Your task to perform on an android device: turn on translation in the chrome app Image 0: 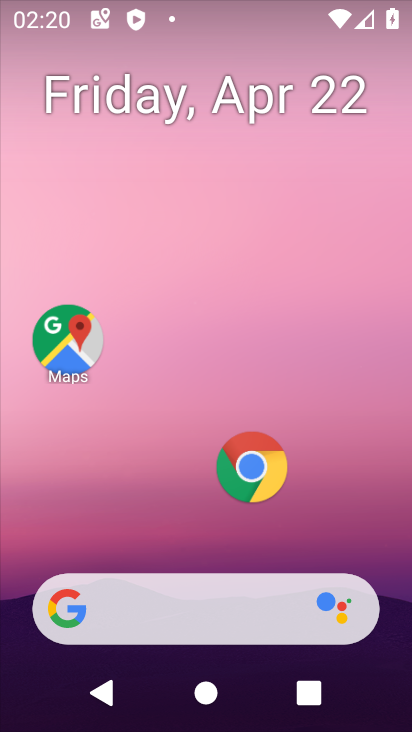
Step 0: click (255, 465)
Your task to perform on an android device: turn on translation in the chrome app Image 1: 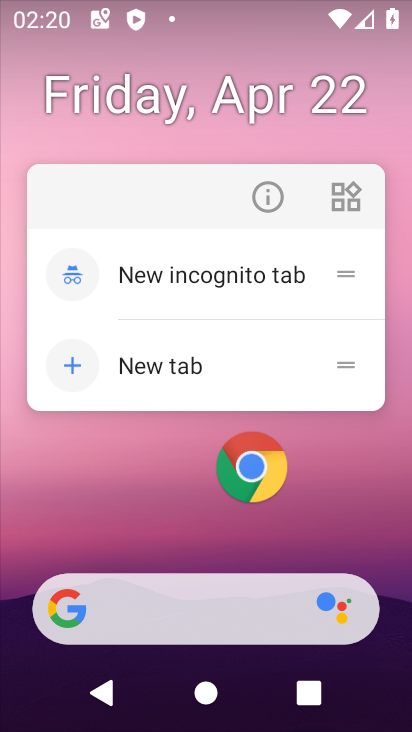
Step 1: click (272, 204)
Your task to perform on an android device: turn on translation in the chrome app Image 2: 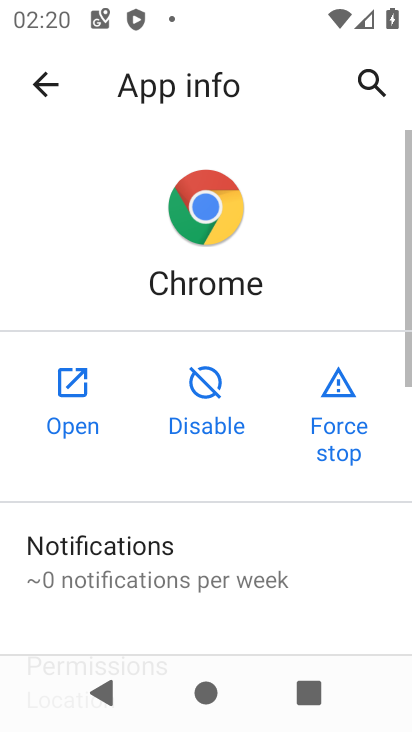
Step 2: click (84, 434)
Your task to perform on an android device: turn on translation in the chrome app Image 3: 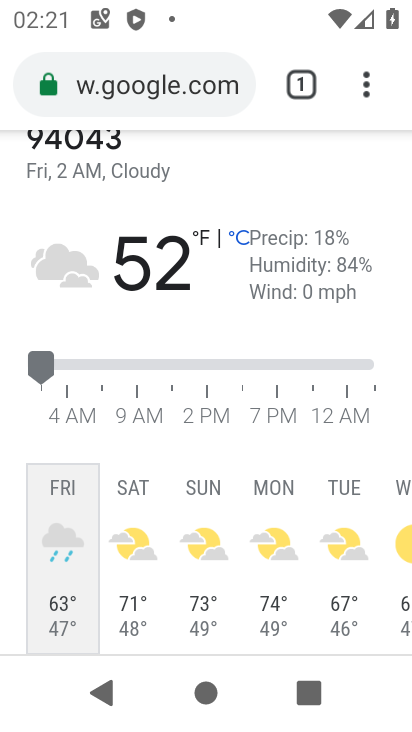
Step 3: click (369, 91)
Your task to perform on an android device: turn on translation in the chrome app Image 4: 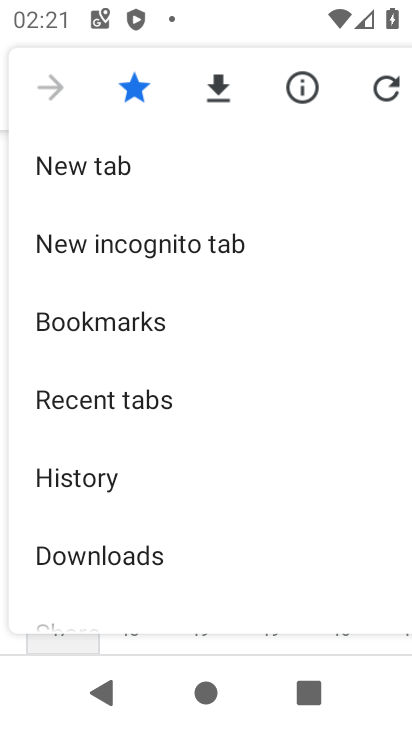
Step 4: drag from (172, 538) to (184, 161)
Your task to perform on an android device: turn on translation in the chrome app Image 5: 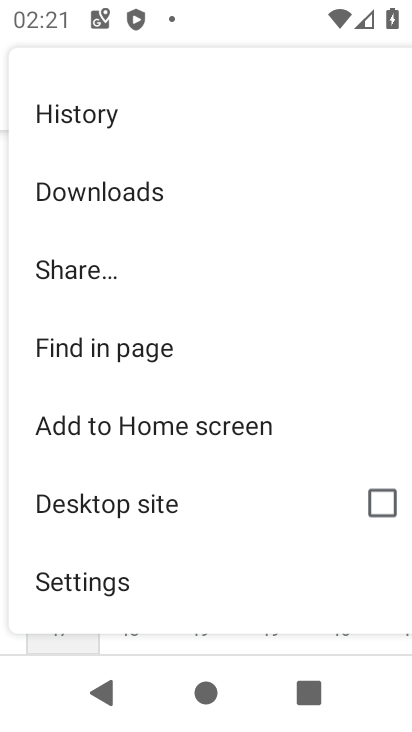
Step 5: click (125, 587)
Your task to perform on an android device: turn on translation in the chrome app Image 6: 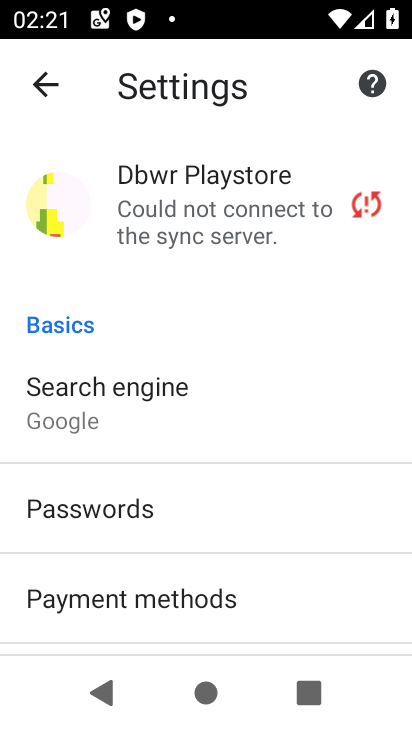
Step 6: drag from (162, 524) to (186, 344)
Your task to perform on an android device: turn on translation in the chrome app Image 7: 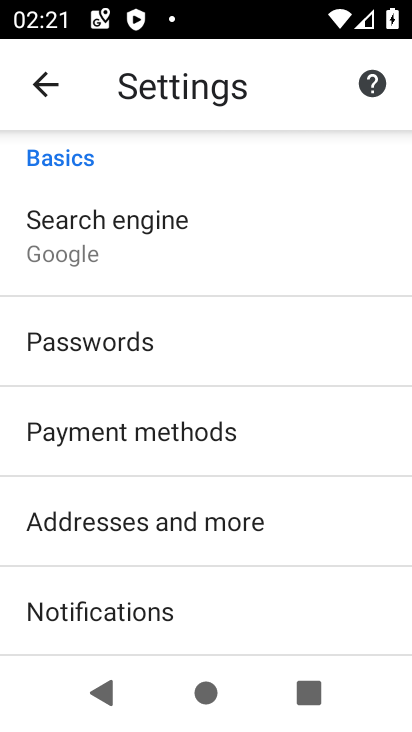
Step 7: drag from (137, 567) to (160, 223)
Your task to perform on an android device: turn on translation in the chrome app Image 8: 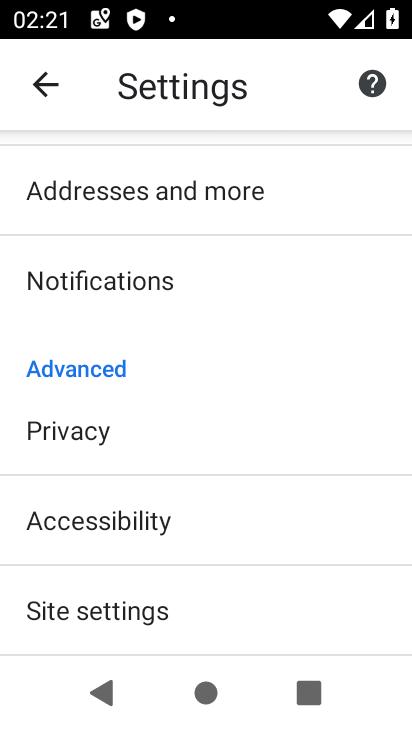
Step 8: drag from (122, 598) to (163, 335)
Your task to perform on an android device: turn on translation in the chrome app Image 9: 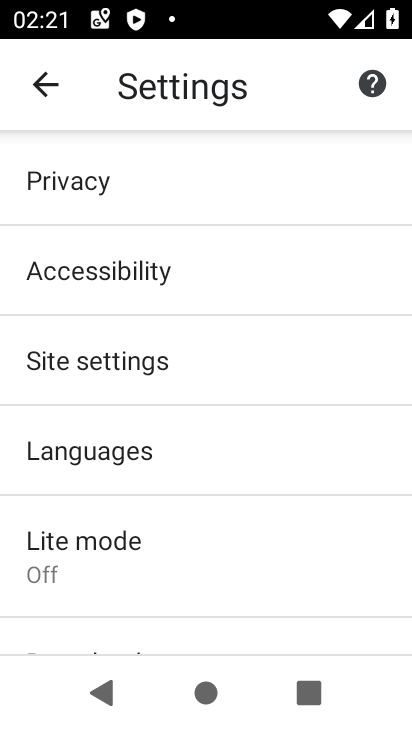
Step 9: drag from (192, 552) to (244, 177)
Your task to perform on an android device: turn on translation in the chrome app Image 10: 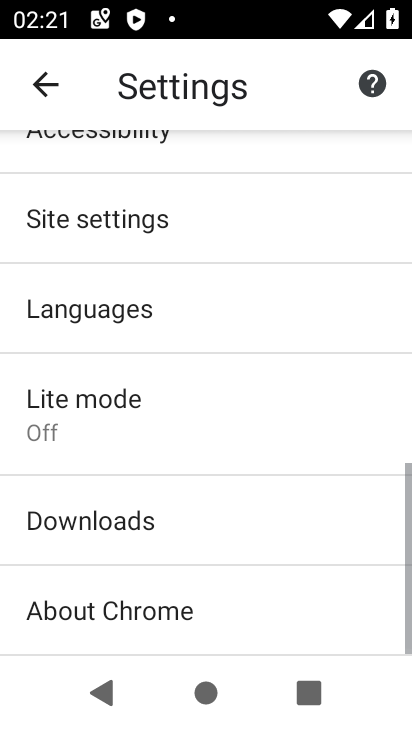
Step 10: drag from (213, 369) to (231, 267)
Your task to perform on an android device: turn on translation in the chrome app Image 11: 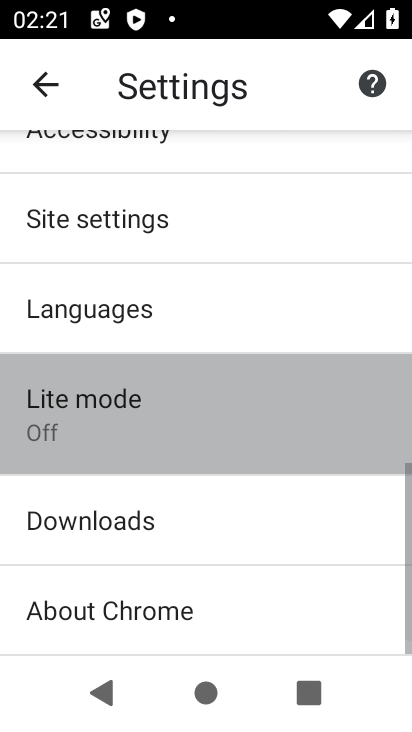
Step 11: drag from (231, 308) to (242, 548)
Your task to perform on an android device: turn on translation in the chrome app Image 12: 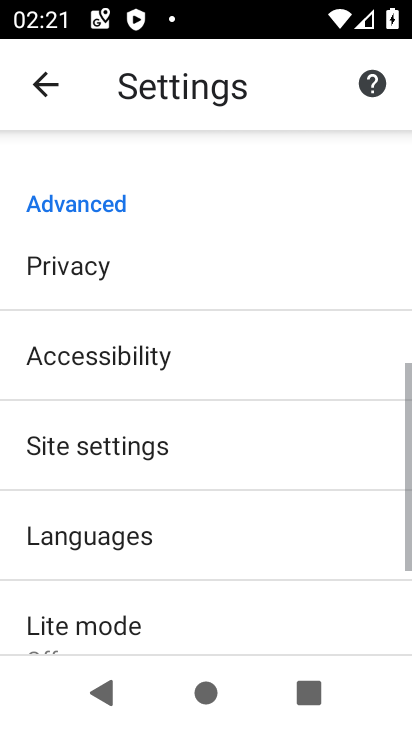
Step 12: drag from (275, 309) to (257, 531)
Your task to perform on an android device: turn on translation in the chrome app Image 13: 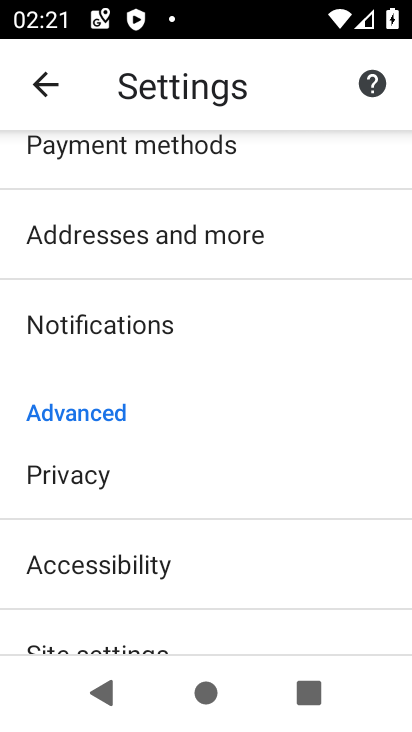
Step 13: drag from (237, 245) to (203, 581)
Your task to perform on an android device: turn on translation in the chrome app Image 14: 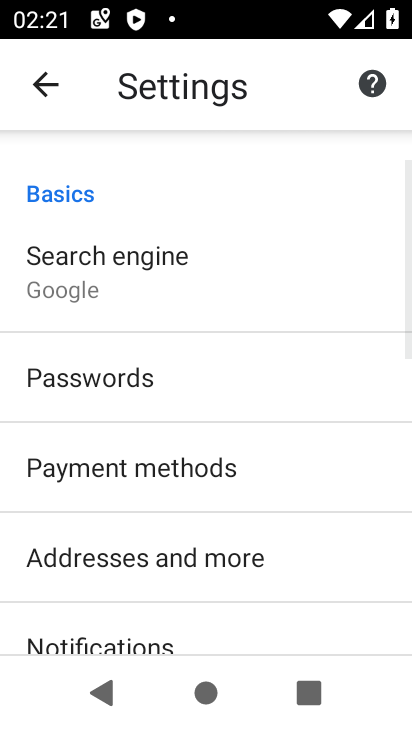
Step 14: drag from (157, 520) to (200, 213)
Your task to perform on an android device: turn on translation in the chrome app Image 15: 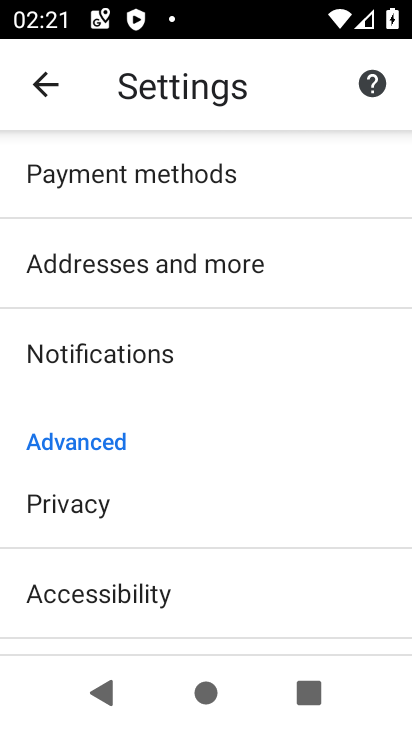
Step 15: drag from (155, 280) to (174, 208)
Your task to perform on an android device: turn on translation in the chrome app Image 16: 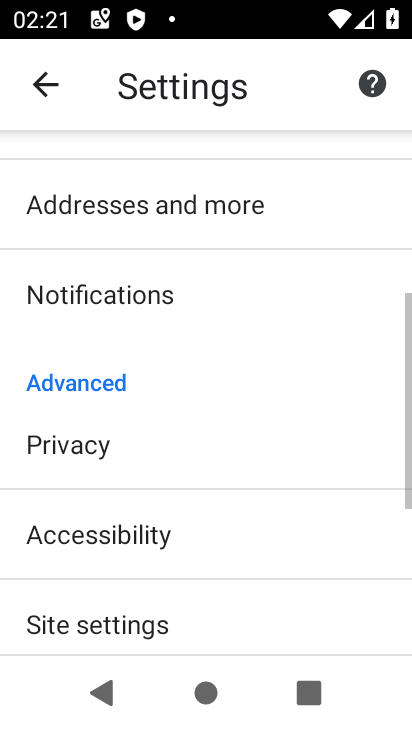
Step 16: drag from (155, 460) to (196, 235)
Your task to perform on an android device: turn on translation in the chrome app Image 17: 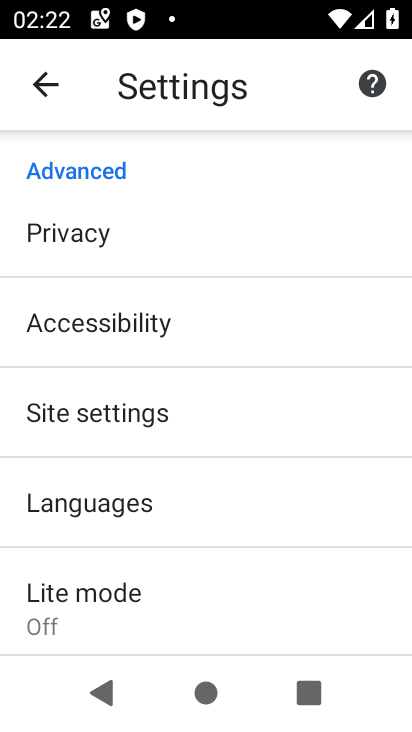
Step 17: click (114, 489)
Your task to perform on an android device: turn on translation in the chrome app Image 18: 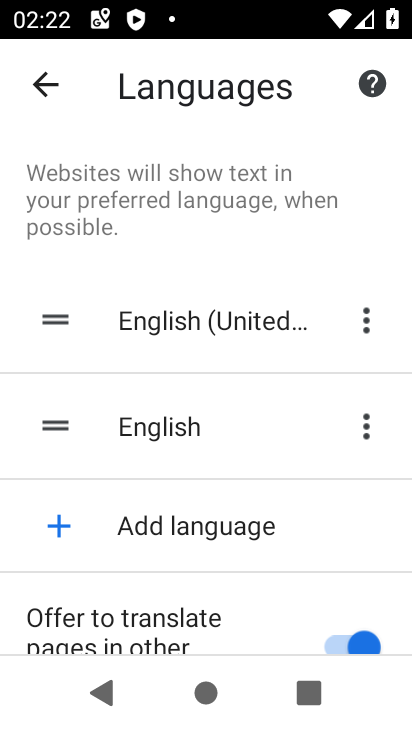
Step 18: task complete